Your task to perform on an android device: turn off picture-in-picture Image 0: 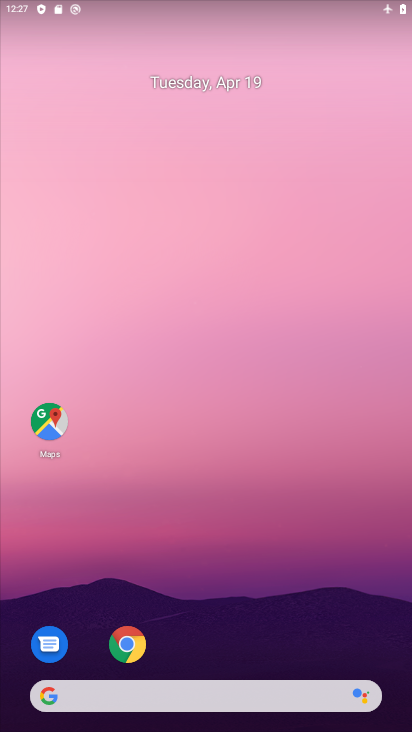
Step 0: drag from (255, 646) to (241, 94)
Your task to perform on an android device: turn off picture-in-picture Image 1: 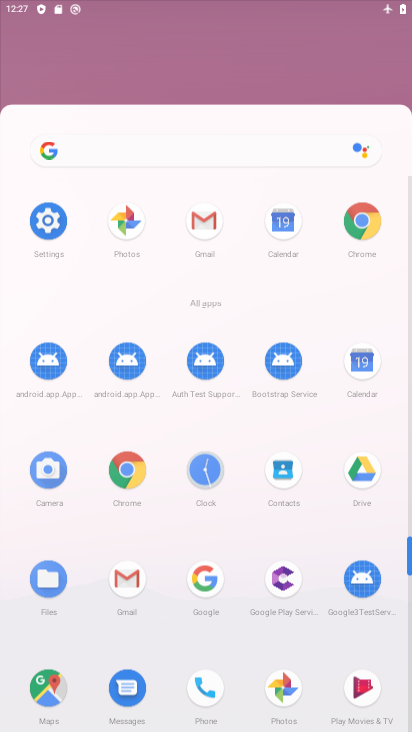
Step 1: click (241, 94)
Your task to perform on an android device: turn off picture-in-picture Image 2: 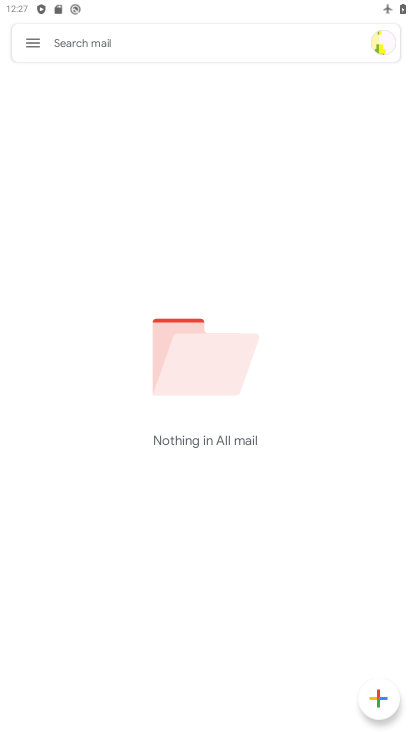
Step 2: press back button
Your task to perform on an android device: turn off picture-in-picture Image 3: 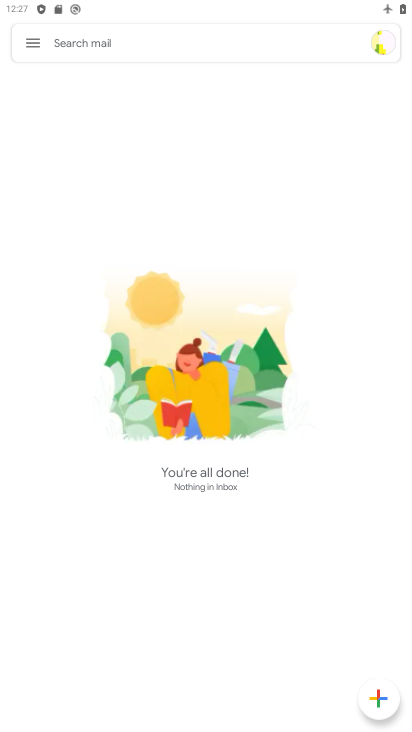
Step 3: press back button
Your task to perform on an android device: turn off picture-in-picture Image 4: 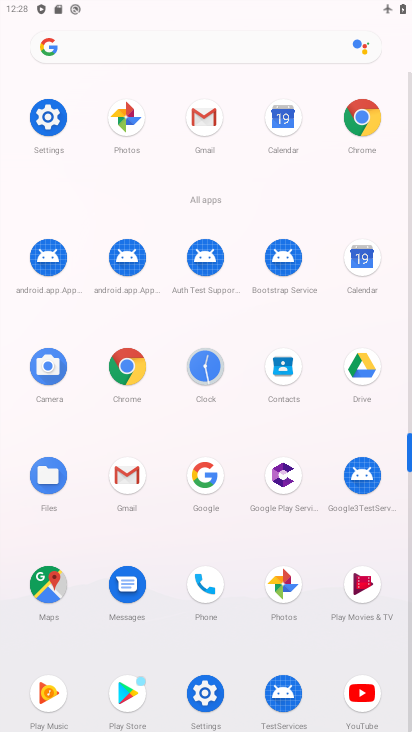
Step 4: click (40, 137)
Your task to perform on an android device: turn off picture-in-picture Image 5: 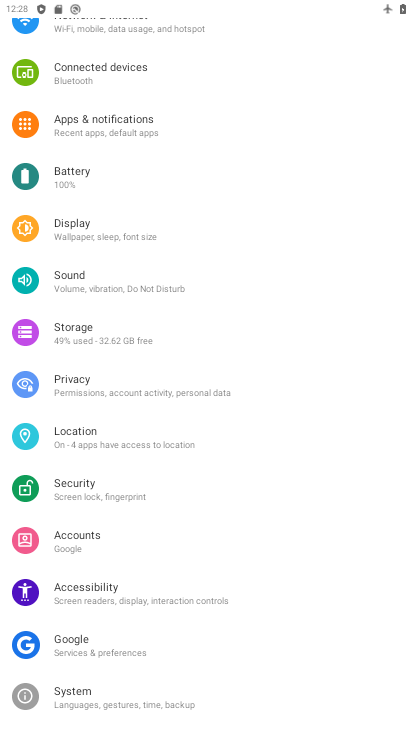
Step 5: drag from (196, 259) to (196, 547)
Your task to perform on an android device: turn off picture-in-picture Image 6: 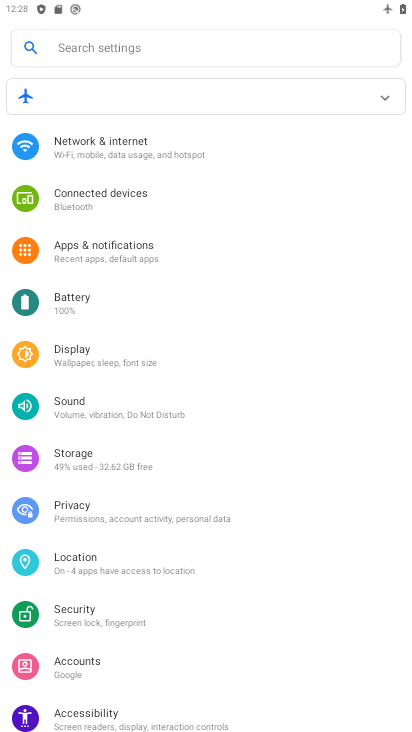
Step 6: drag from (81, 516) to (128, 257)
Your task to perform on an android device: turn off picture-in-picture Image 7: 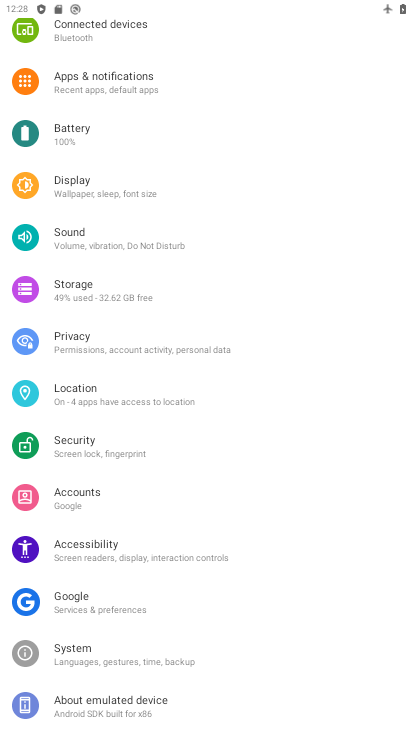
Step 7: click (165, 103)
Your task to perform on an android device: turn off picture-in-picture Image 8: 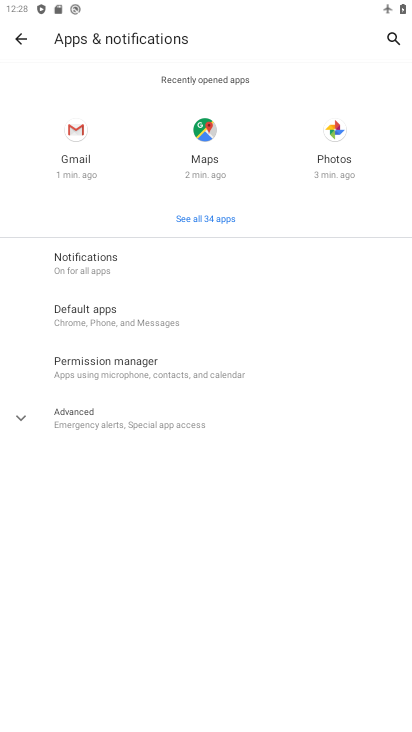
Step 8: click (208, 433)
Your task to perform on an android device: turn off picture-in-picture Image 9: 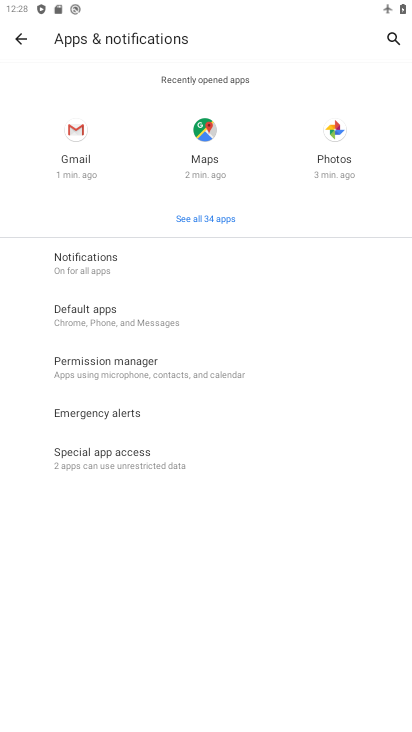
Step 9: click (208, 433)
Your task to perform on an android device: turn off picture-in-picture Image 10: 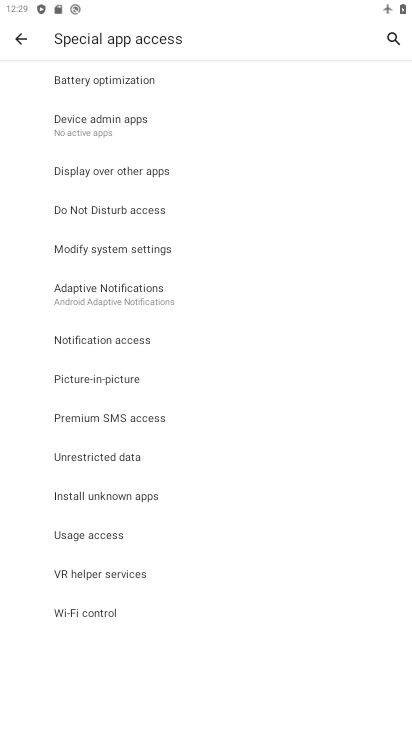
Step 10: click (170, 372)
Your task to perform on an android device: turn off picture-in-picture Image 11: 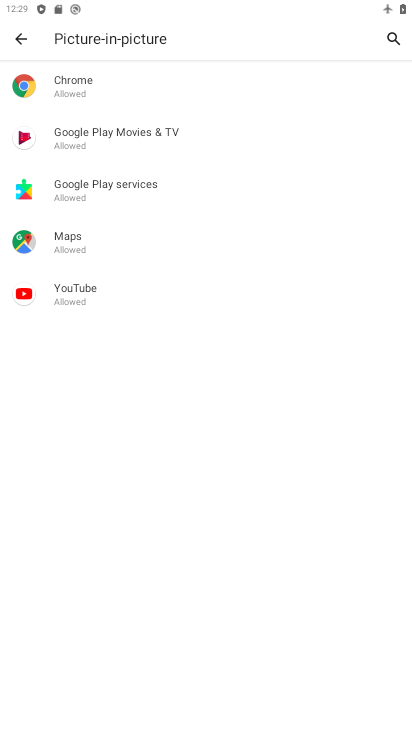
Step 11: click (183, 92)
Your task to perform on an android device: turn off picture-in-picture Image 12: 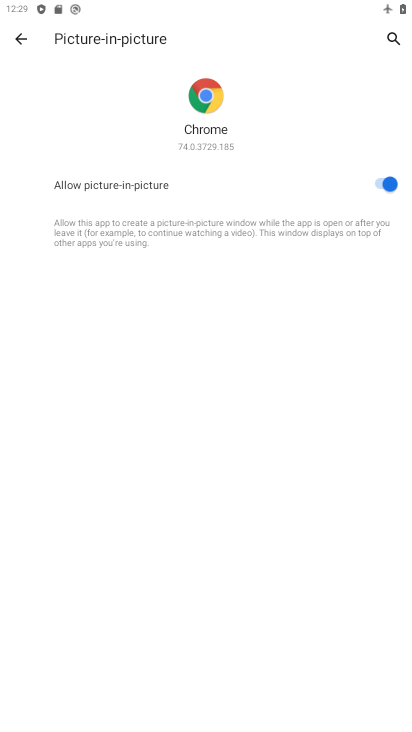
Step 12: click (385, 182)
Your task to perform on an android device: turn off picture-in-picture Image 13: 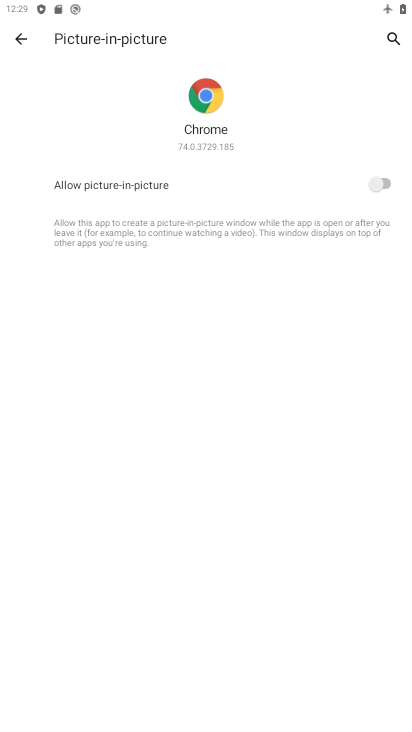
Step 13: task complete